Your task to perform on an android device: turn on priority inbox in the gmail app Image 0: 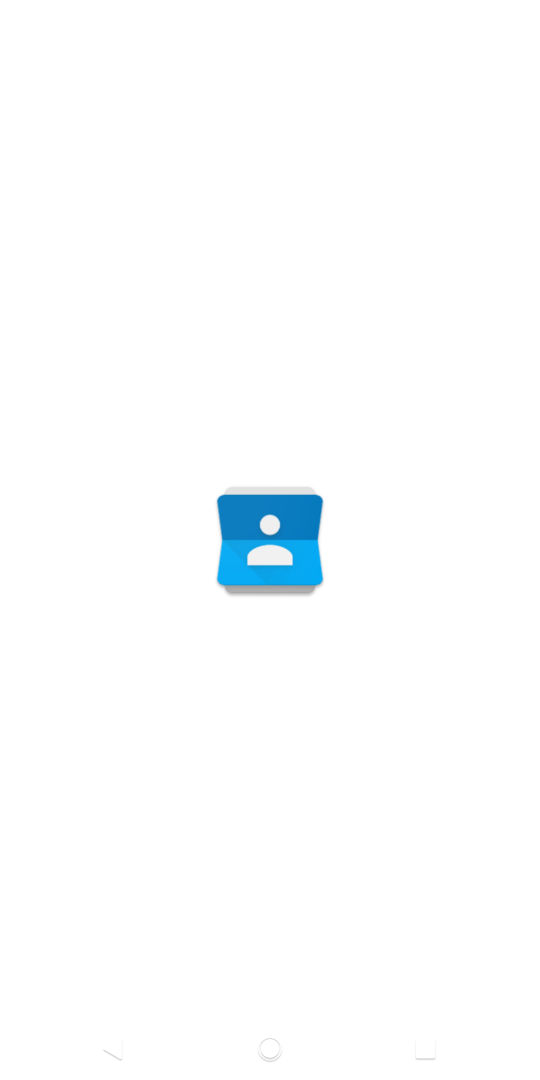
Step 0: press home button
Your task to perform on an android device: turn on priority inbox in the gmail app Image 1: 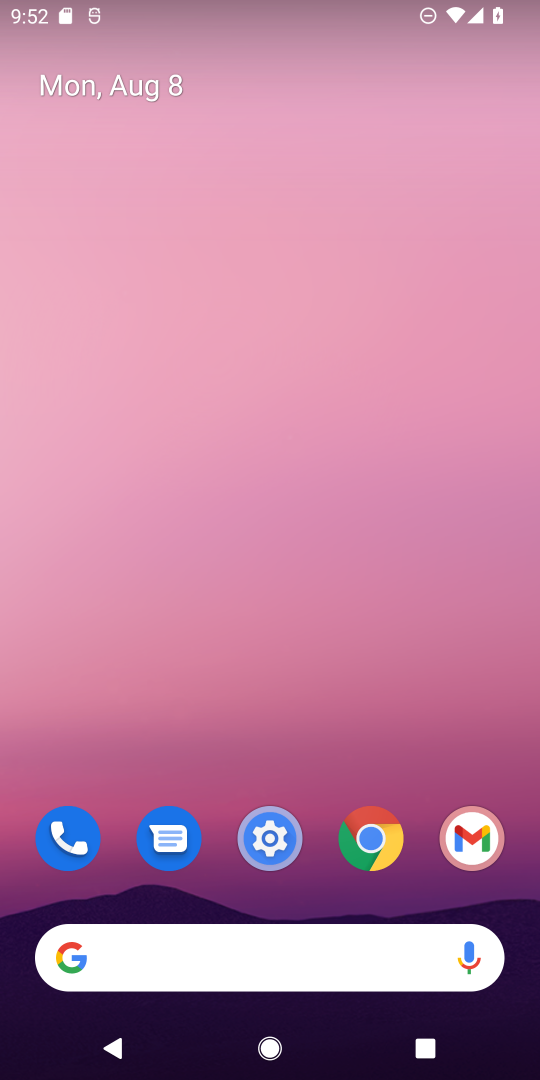
Step 1: click (474, 831)
Your task to perform on an android device: turn on priority inbox in the gmail app Image 2: 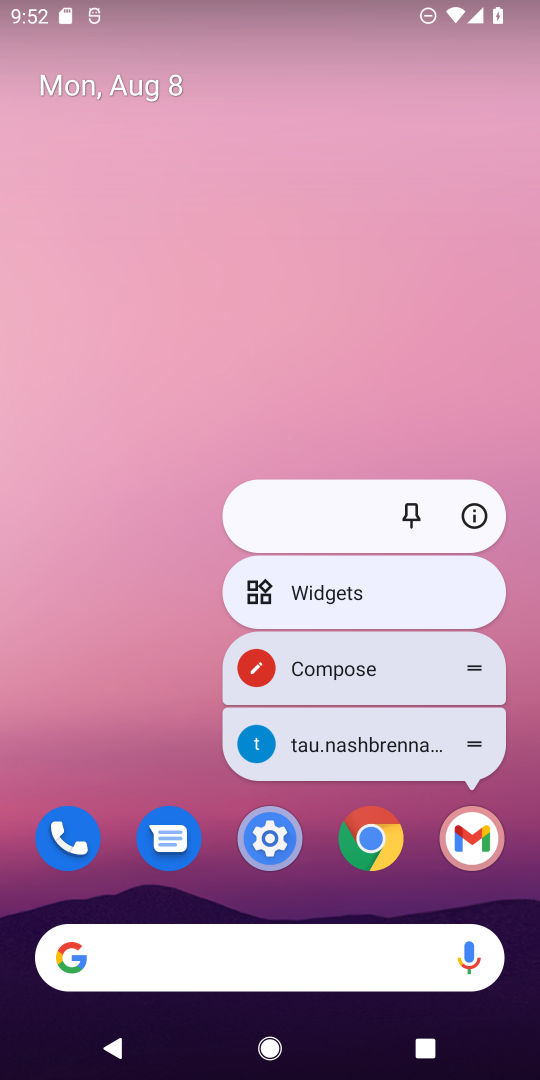
Step 2: click (474, 831)
Your task to perform on an android device: turn on priority inbox in the gmail app Image 3: 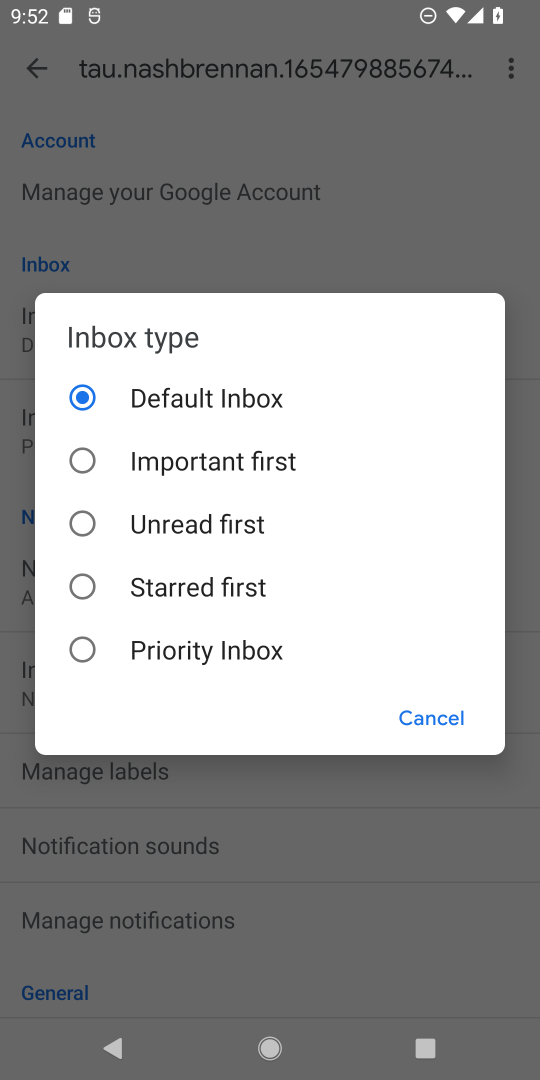
Step 3: click (78, 648)
Your task to perform on an android device: turn on priority inbox in the gmail app Image 4: 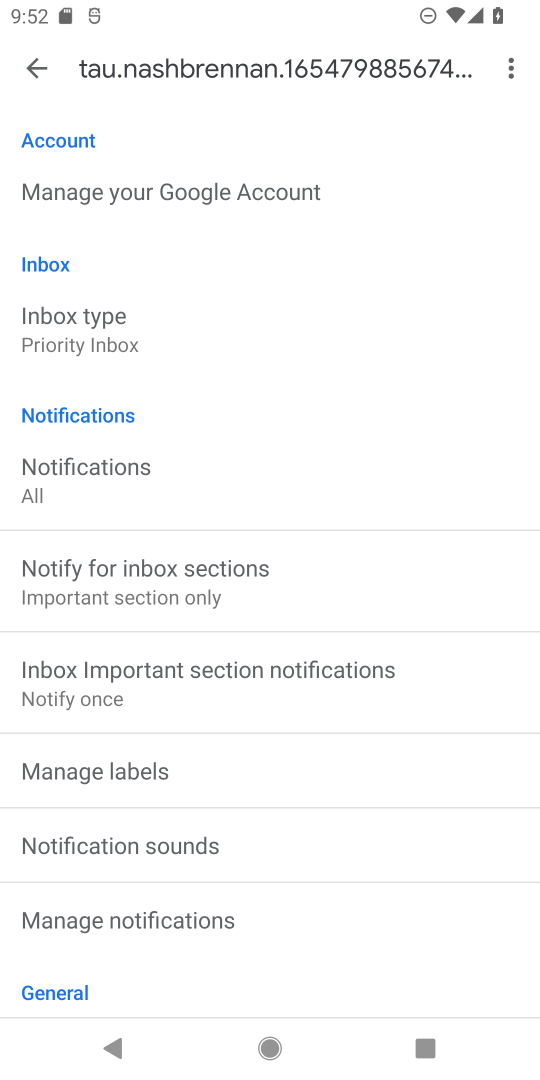
Step 4: task complete